Your task to perform on an android device: Go to Amazon Image 0: 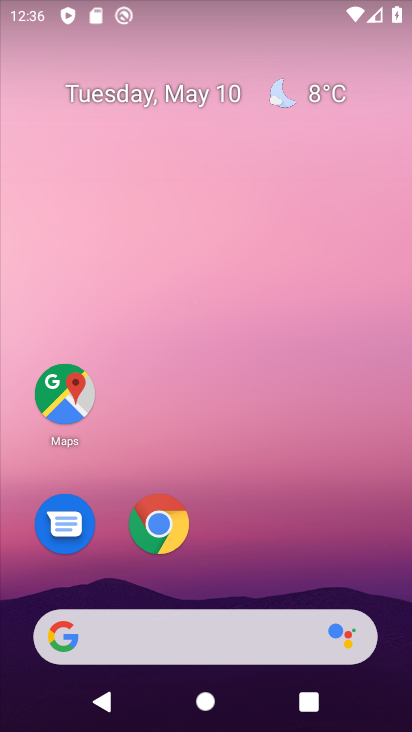
Step 0: click (273, 638)
Your task to perform on an android device: Go to Amazon Image 1: 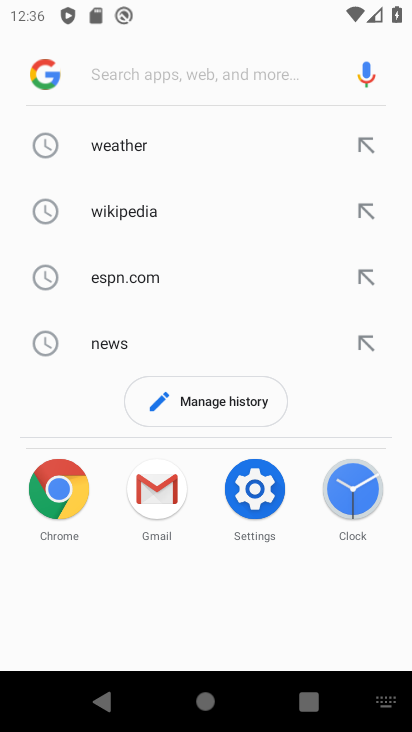
Step 1: type "amazon"
Your task to perform on an android device: Go to Amazon Image 2: 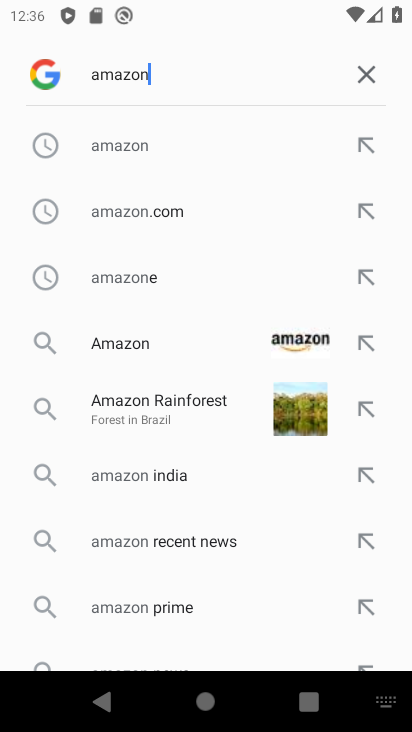
Step 2: click (124, 338)
Your task to perform on an android device: Go to Amazon Image 3: 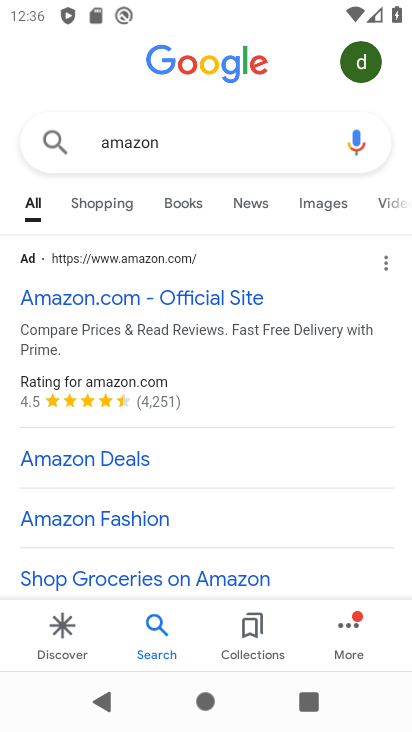
Step 3: click (98, 294)
Your task to perform on an android device: Go to Amazon Image 4: 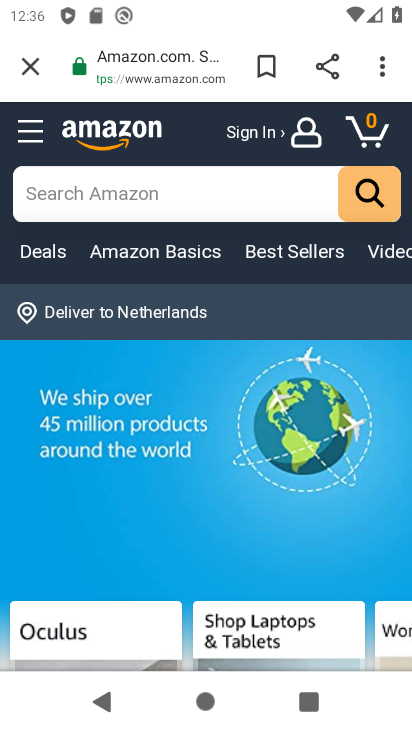
Step 4: task complete